Your task to perform on an android device: move a message to another label in the gmail app Image 0: 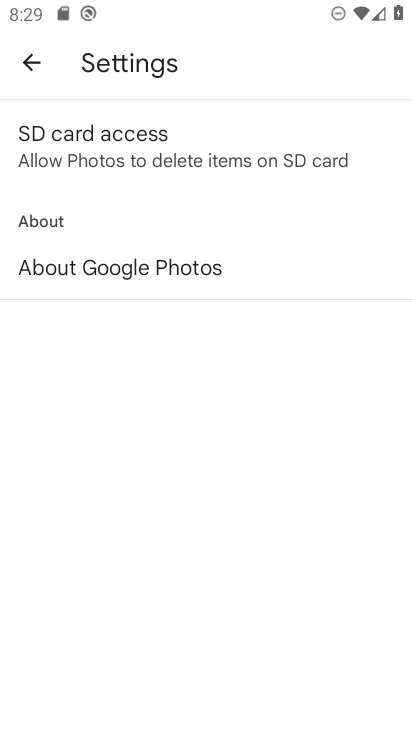
Step 0: press back button
Your task to perform on an android device: move a message to another label in the gmail app Image 1: 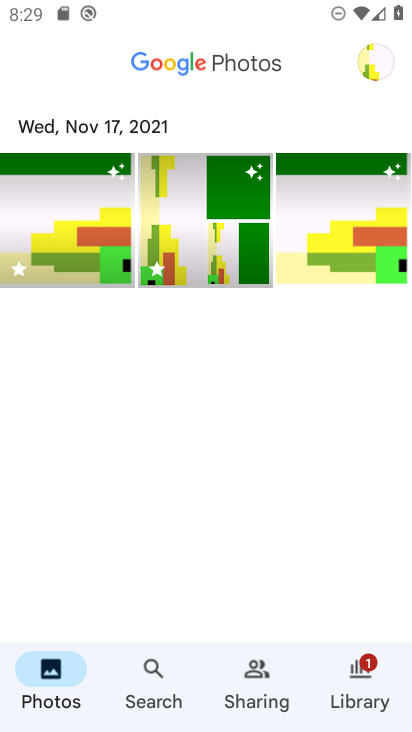
Step 1: press back button
Your task to perform on an android device: move a message to another label in the gmail app Image 2: 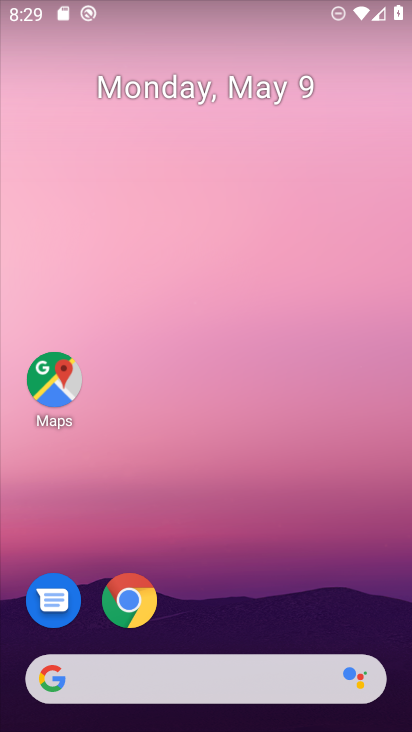
Step 2: drag from (207, 606) to (158, 13)
Your task to perform on an android device: move a message to another label in the gmail app Image 3: 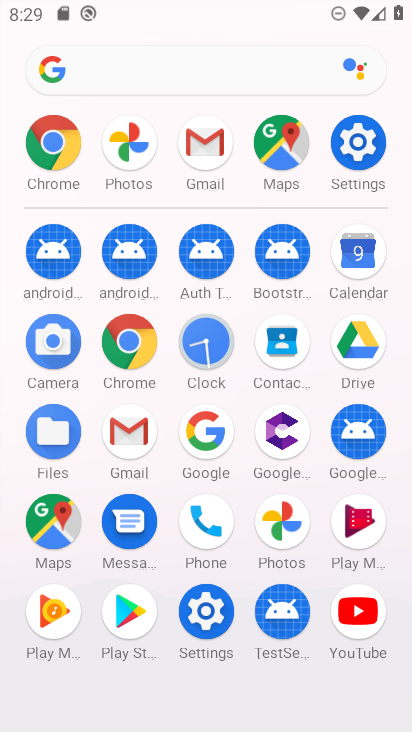
Step 3: drag from (10, 566) to (8, 206)
Your task to perform on an android device: move a message to another label in the gmail app Image 4: 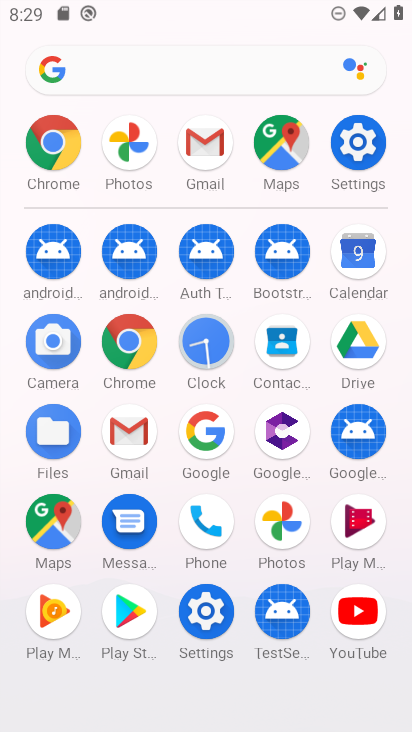
Step 4: click (127, 425)
Your task to perform on an android device: move a message to another label in the gmail app Image 5: 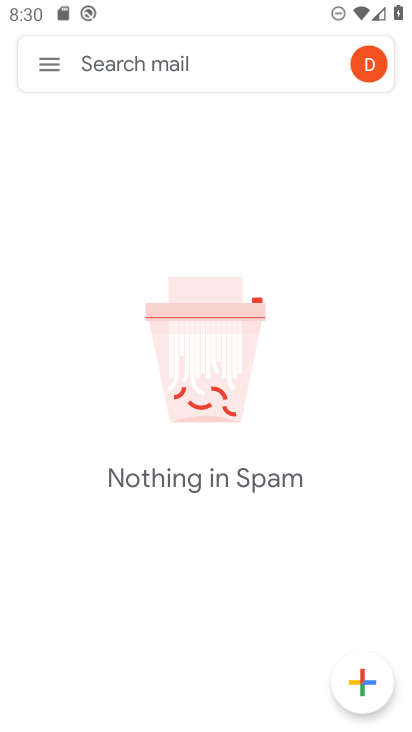
Step 5: click (44, 61)
Your task to perform on an android device: move a message to another label in the gmail app Image 6: 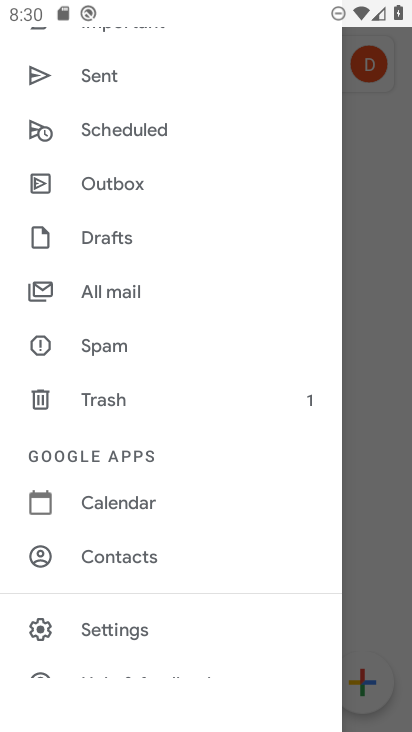
Step 6: click (110, 343)
Your task to perform on an android device: move a message to another label in the gmail app Image 7: 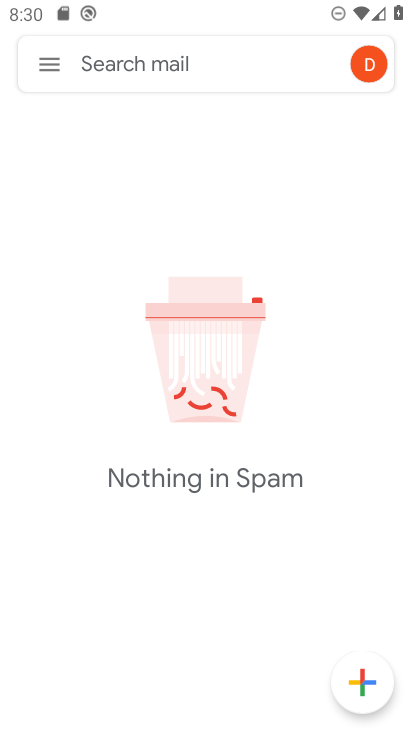
Step 7: click (53, 64)
Your task to perform on an android device: move a message to another label in the gmail app Image 8: 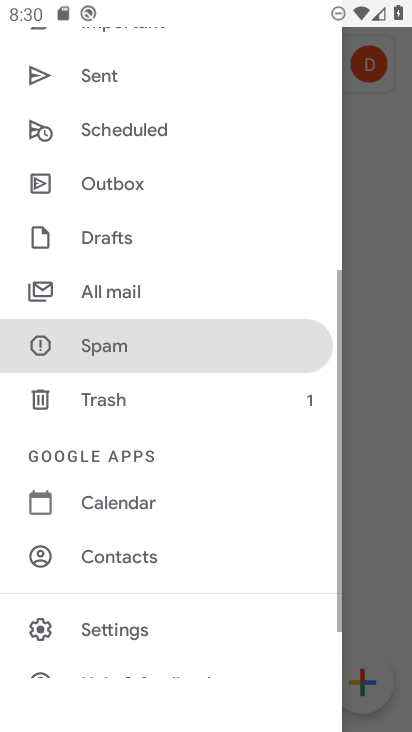
Step 8: drag from (153, 152) to (225, 117)
Your task to perform on an android device: move a message to another label in the gmail app Image 9: 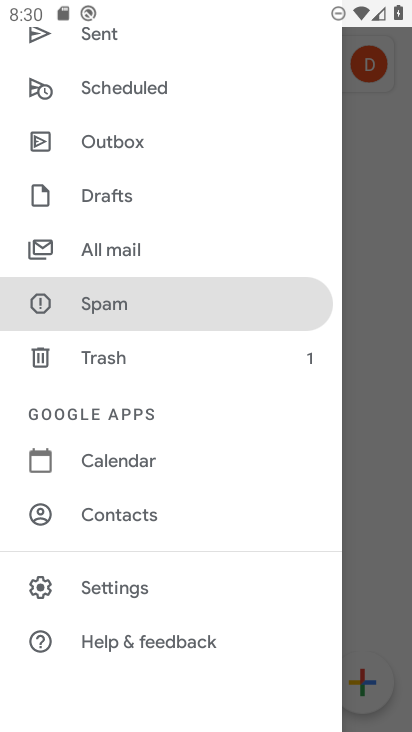
Step 9: click (111, 353)
Your task to perform on an android device: move a message to another label in the gmail app Image 10: 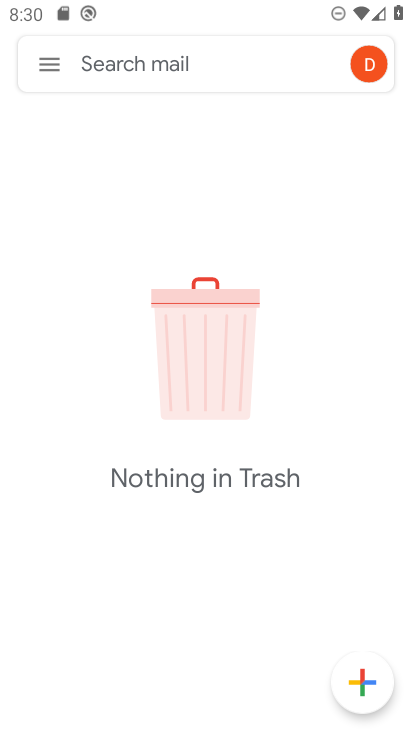
Step 10: drag from (247, 215) to (263, 556)
Your task to perform on an android device: move a message to another label in the gmail app Image 11: 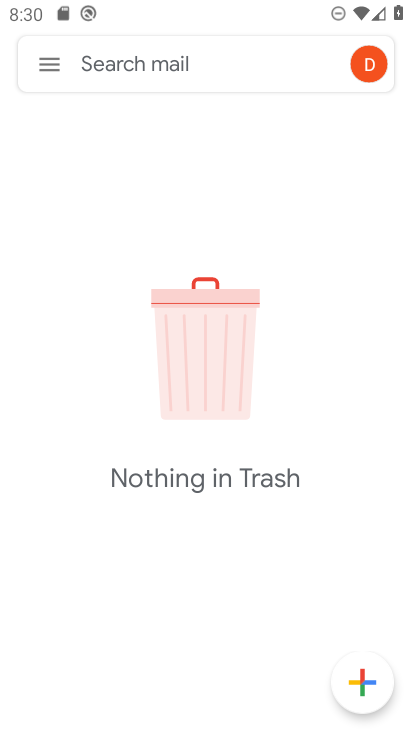
Step 11: click (51, 65)
Your task to perform on an android device: move a message to another label in the gmail app Image 12: 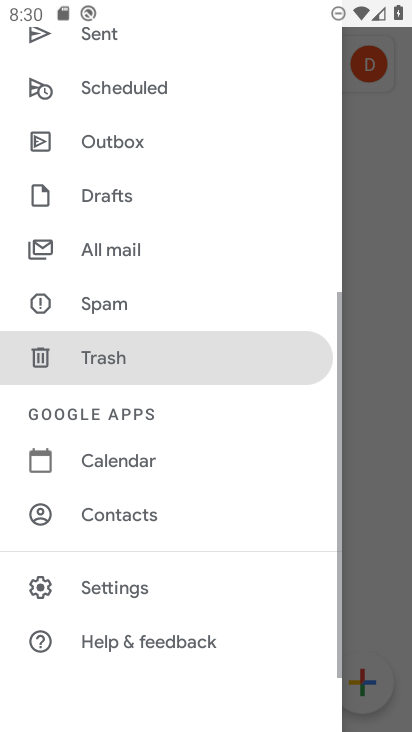
Step 12: drag from (159, 162) to (211, 586)
Your task to perform on an android device: move a message to another label in the gmail app Image 13: 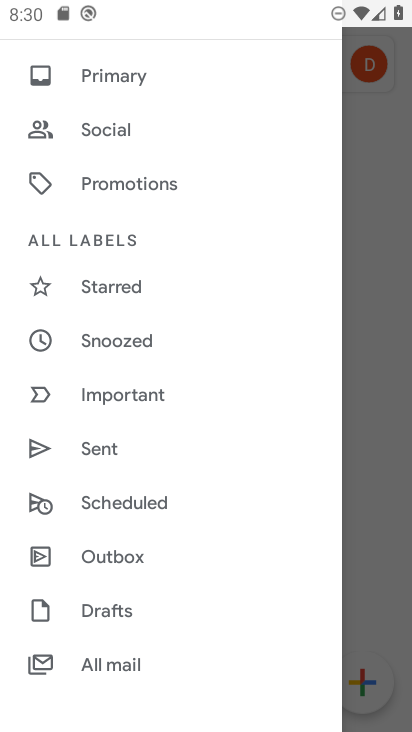
Step 13: click (141, 77)
Your task to perform on an android device: move a message to another label in the gmail app Image 14: 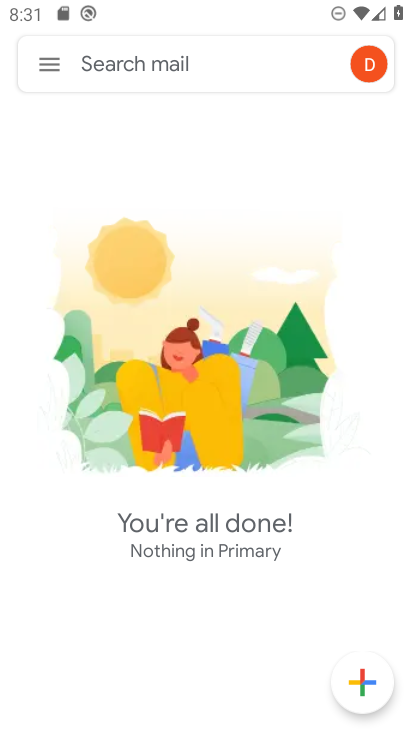
Step 14: task complete